Your task to perform on an android device: Search for Mexican restaurants on Maps Image 0: 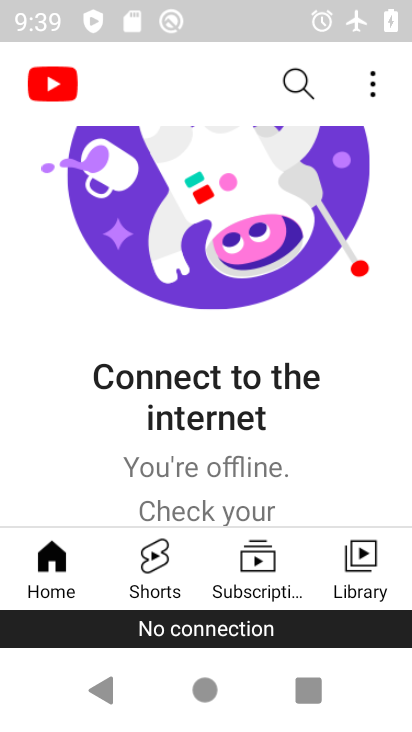
Step 0: drag from (266, 532) to (303, 317)
Your task to perform on an android device: Search for Mexican restaurants on Maps Image 1: 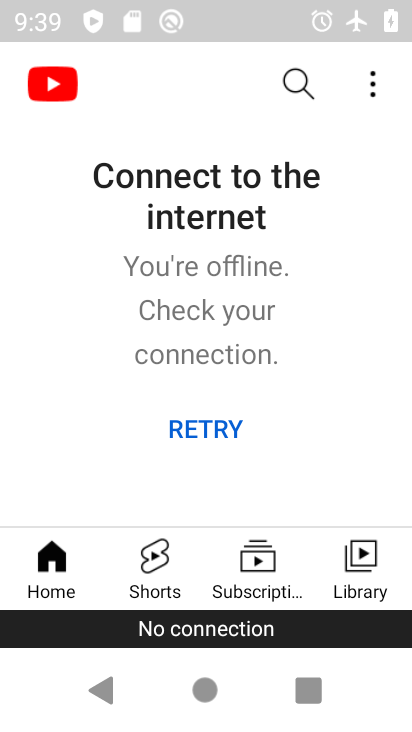
Step 1: press home button
Your task to perform on an android device: Search for Mexican restaurants on Maps Image 2: 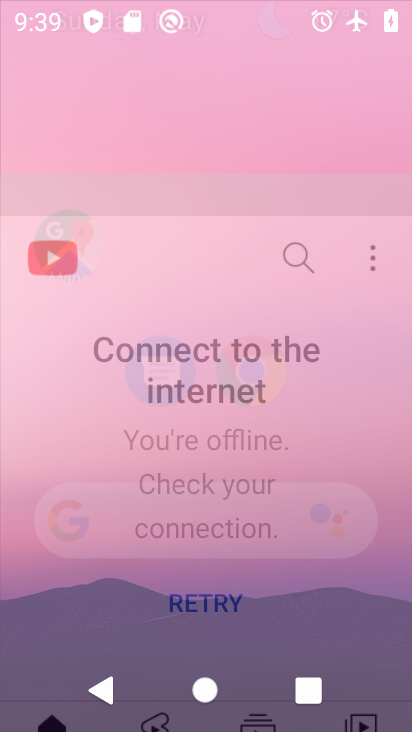
Step 2: drag from (338, 481) to (405, 133)
Your task to perform on an android device: Search for Mexican restaurants on Maps Image 3: 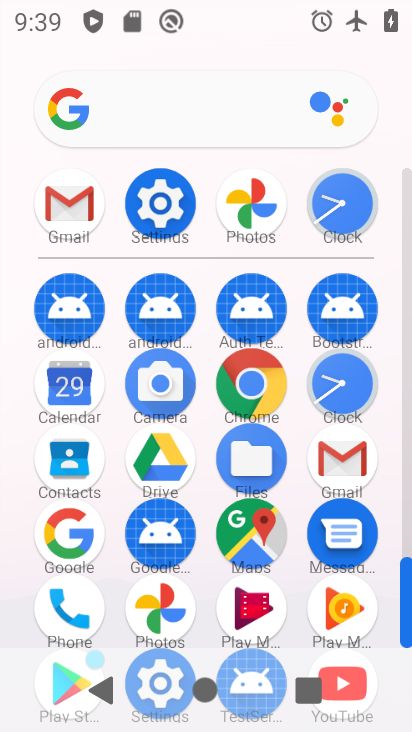
Step 3: click (260, 529)
Your task to perform on an android device: Search for Mexican restaurants on Maps Image 4: 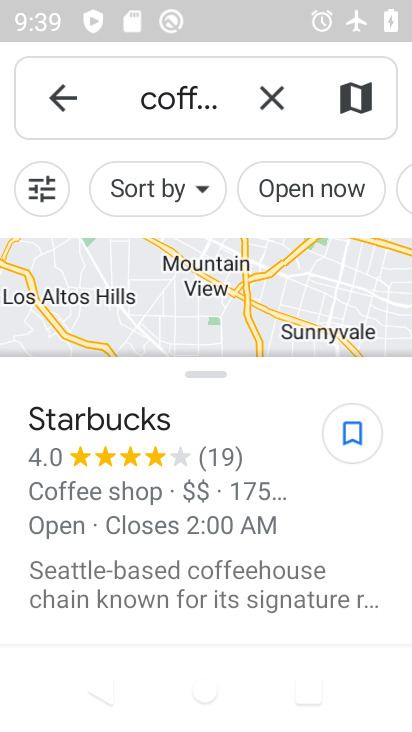
Step 4: drag from (195, 613) to (324, 309)
Your task to perform on an android device: Search for Mexican restaurants on Maps Image 5: 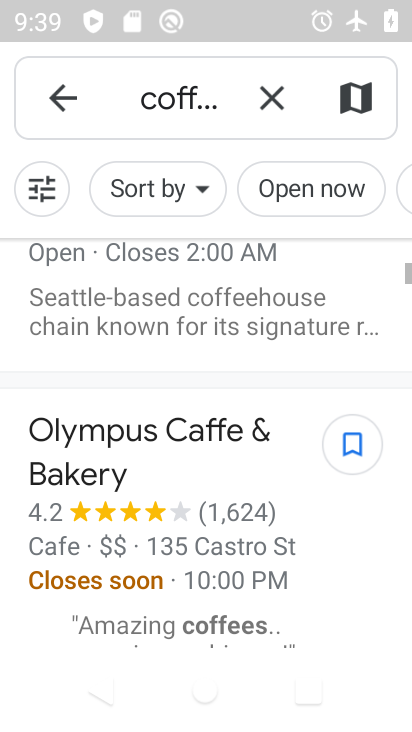
Step 5: click (268, 99)
Your task to perform on an android device: Search for Mexican restaurants on Maps Image 6: 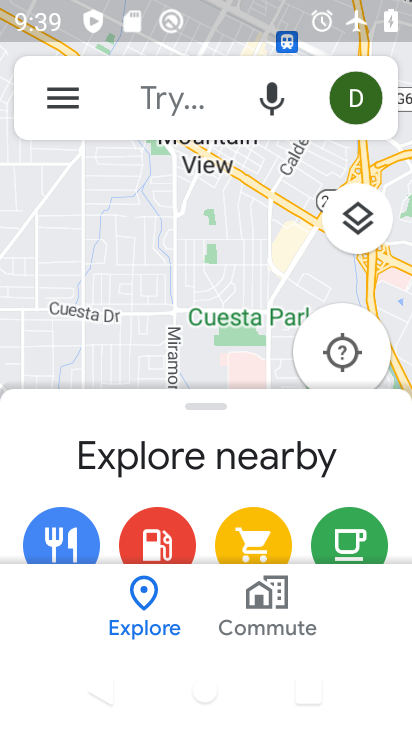
Step 6: click (122, 108)
Your task to perform on an android device: Search for Mexican restaurants on Maps Image 7: 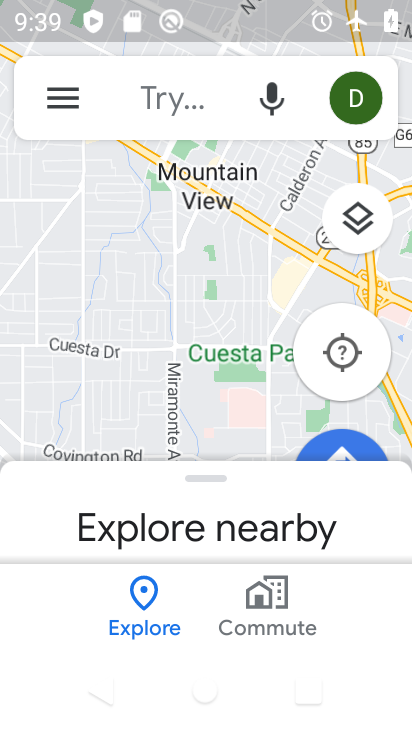
Step 7: click (156, 101)
Your task to perform on an android device: Search for Mexican restaurants on Maps Image 8: 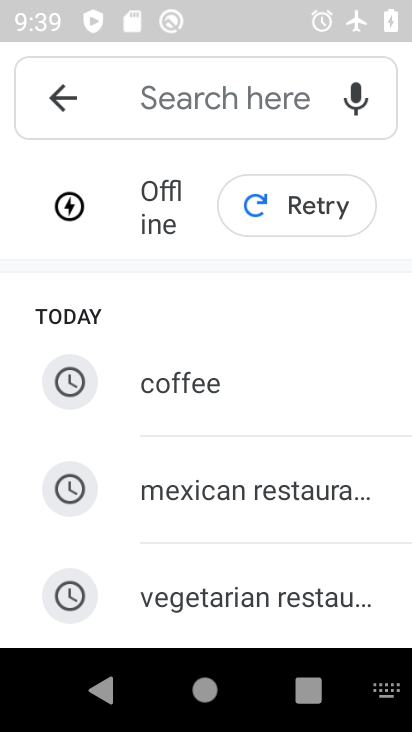
Step 8: click (195, 507)
Your task to perform on an android device: Search for Mexican restaurants on Maps Image 9: 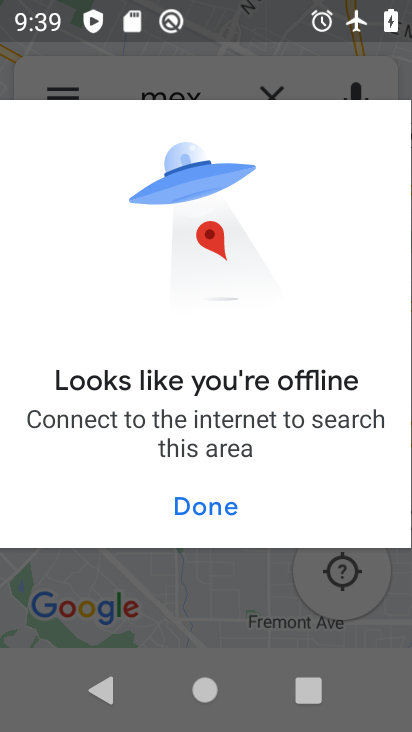
Step 9: click (191, 507)
Your task to perform on an android device: Search for Mexican restaurants on Maps Image 10: 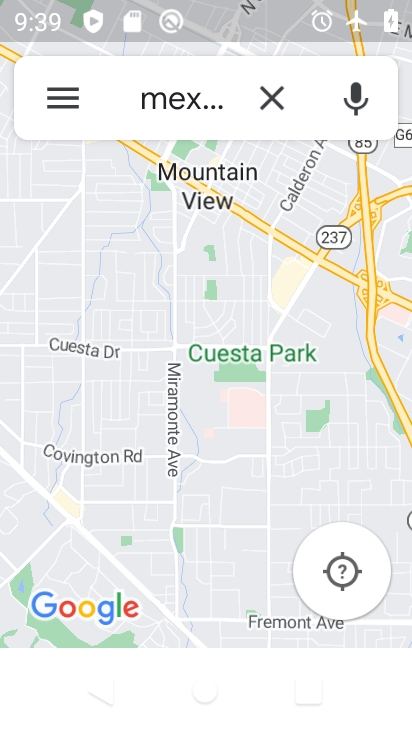
Step 10: task complete